Your task to perform on an android device: What's on my calendar today? Image 0: 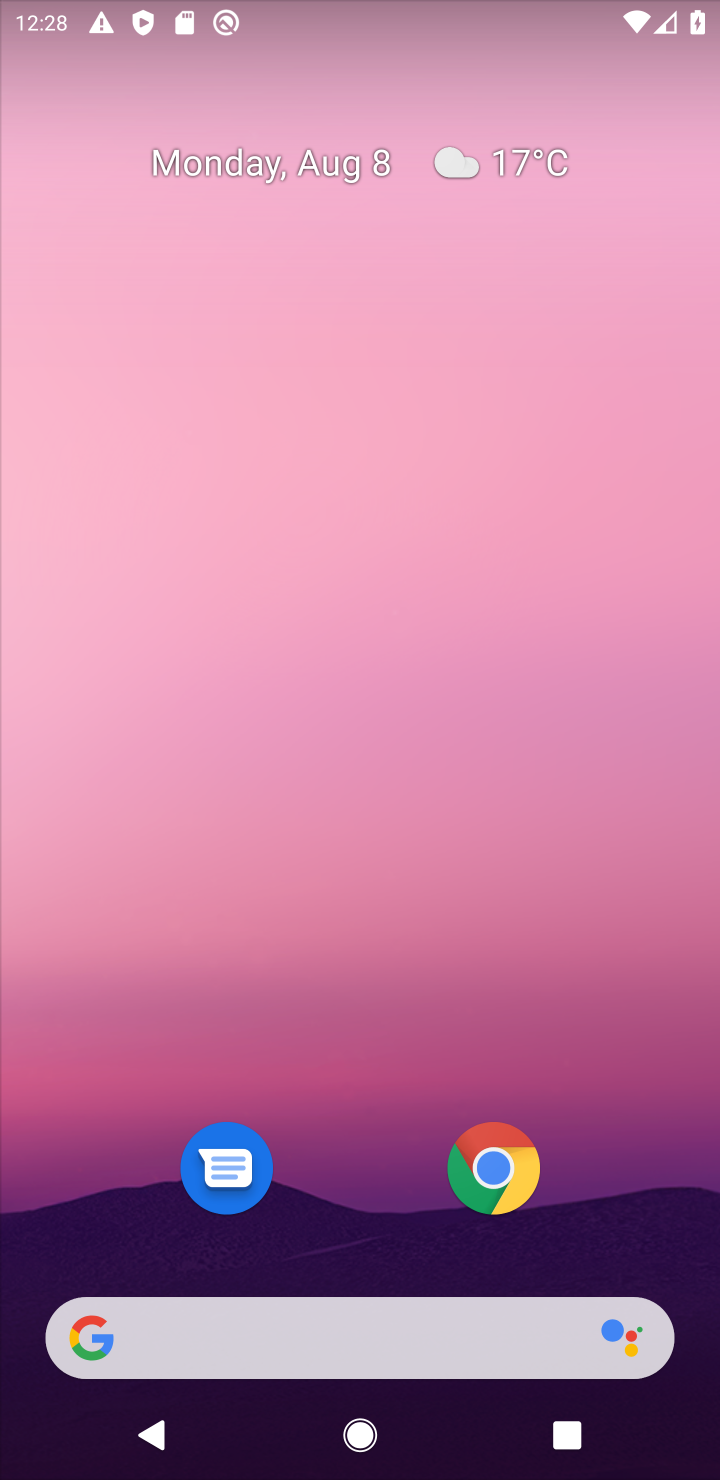
Step 0: drag from (89, 1417) to (601, 436)
Your task to perform on an android device: What's on my calendar today? Image 1: 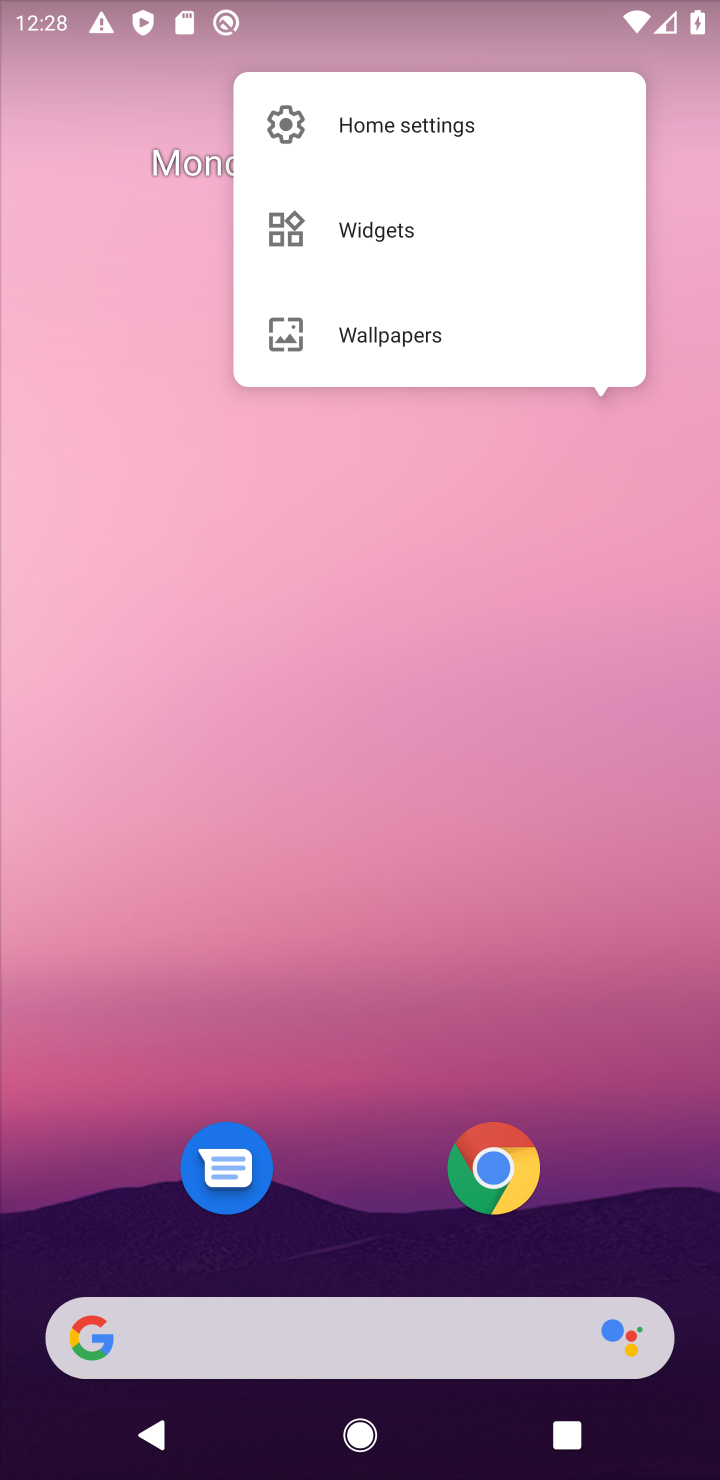
Step 1: drag from (51, 1428) to (208, 789)
Your task to perform on an android device: What's on my calendar today? Image 2: 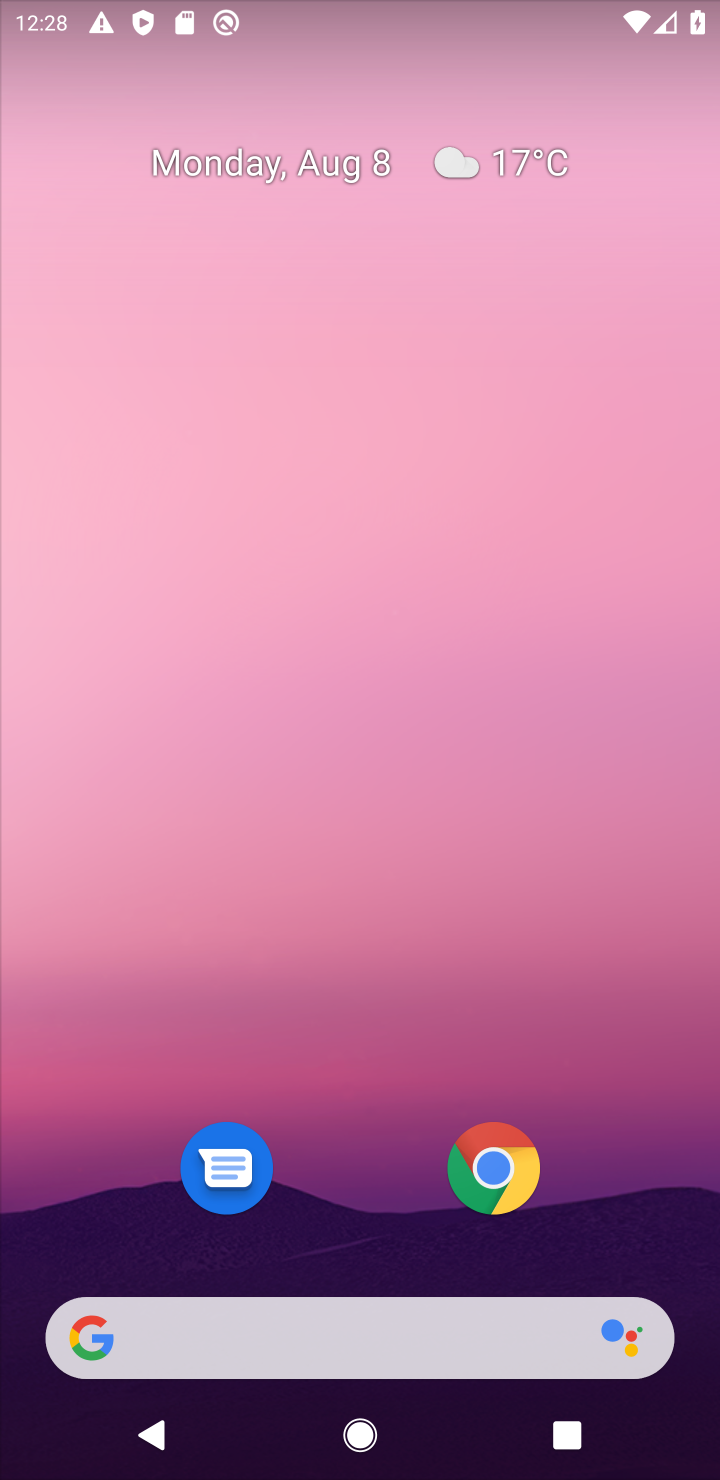
Step 2: drag from (50, 1442) to (275, 712)
Your task to perform on an android device: What's on my calendar today? Image 3: 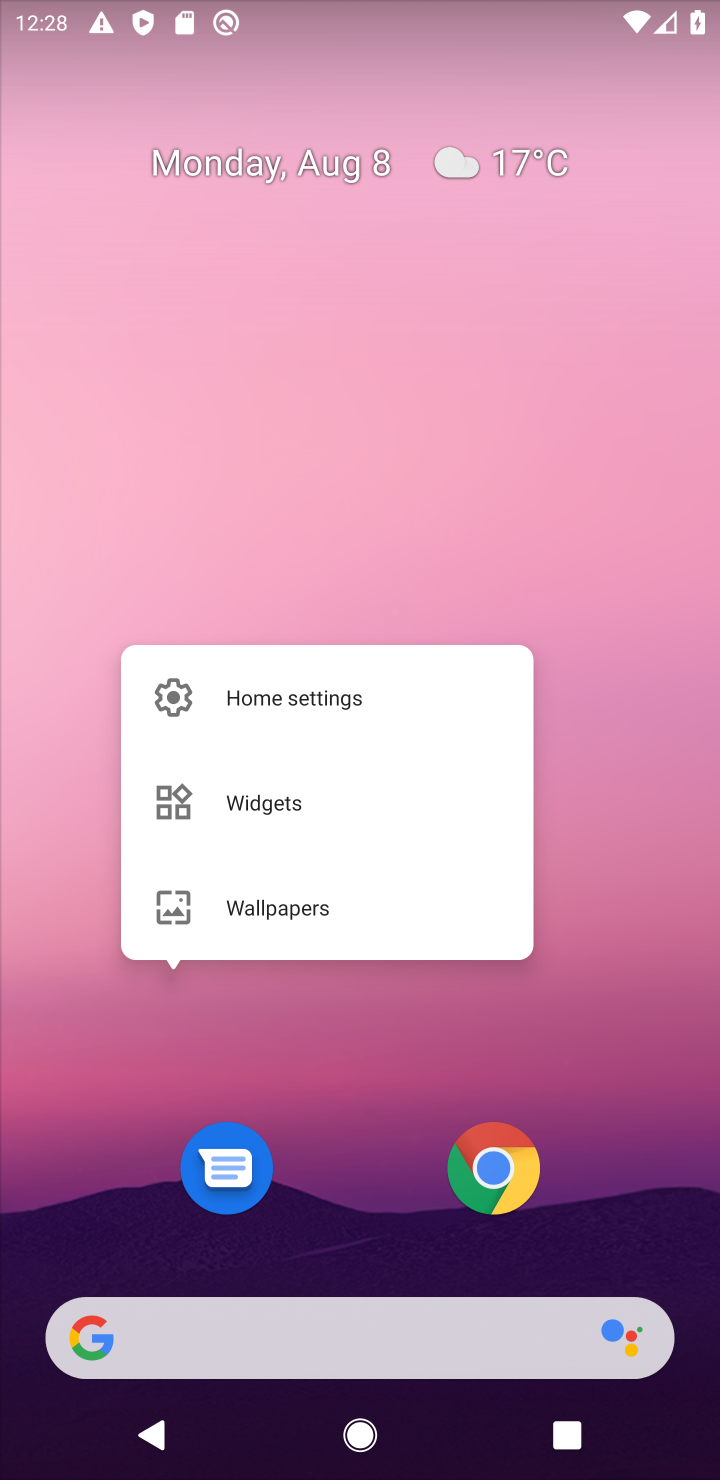
Step 3: drag from (85, 1438) to (491, 307)
Your task to perform on an android device: What's on my calendar today? Image 4: 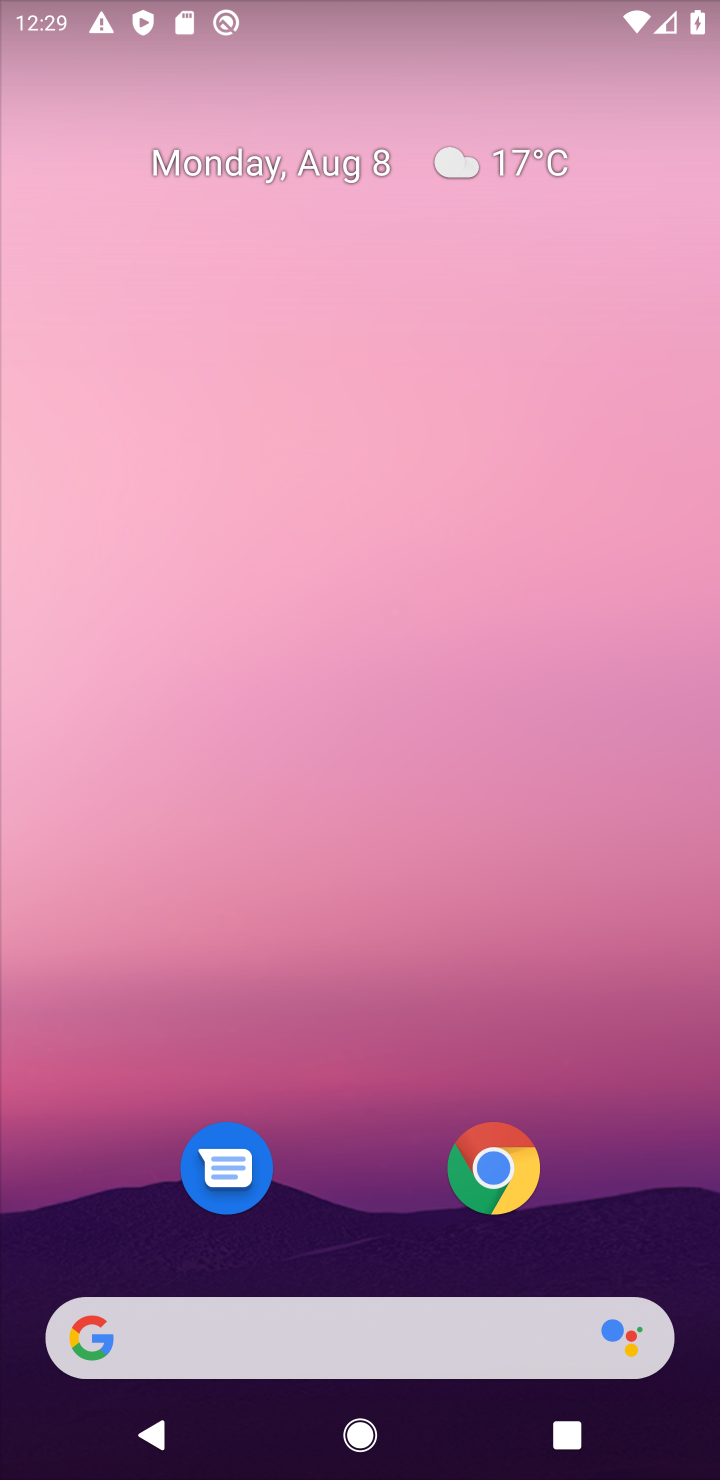
Step 4: drag from (84, 1411) to (271, 639)
Your task to perform on an android device: What's on my calendar today? Image 5: 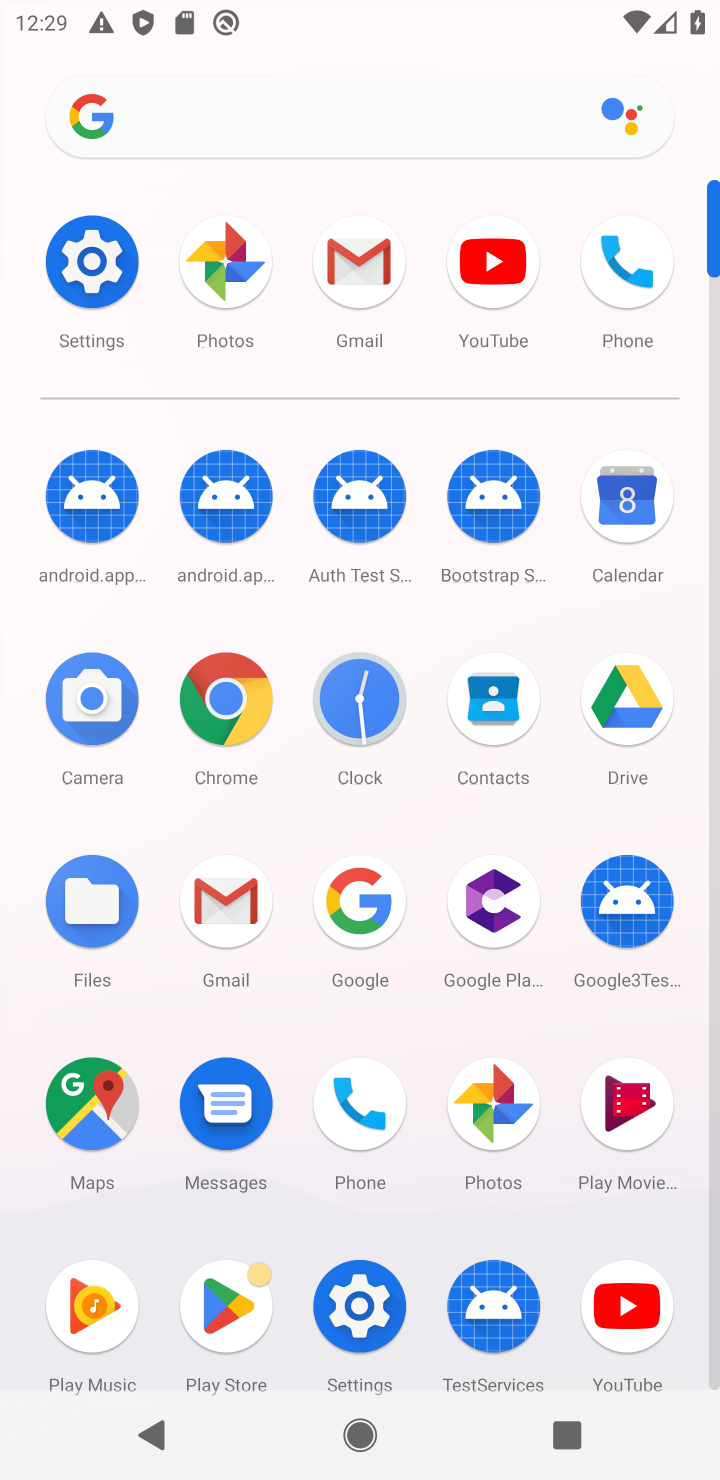
Step 5: click (632, 512)
Your task to perform on an android device: What's on my calendar today? Image 6: 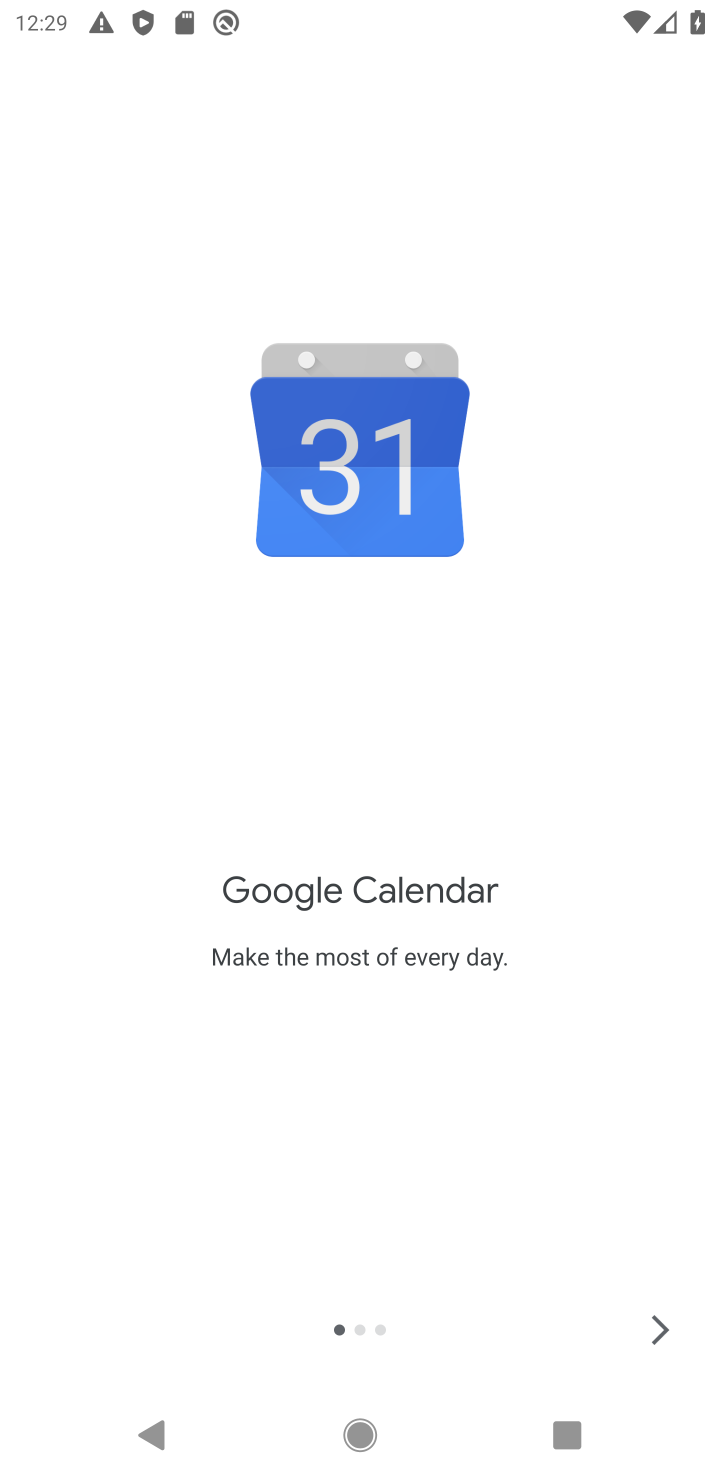
Step 6: click (660, 1325)
Your task to perform on an android device: What's on my calendar today? Image 7: 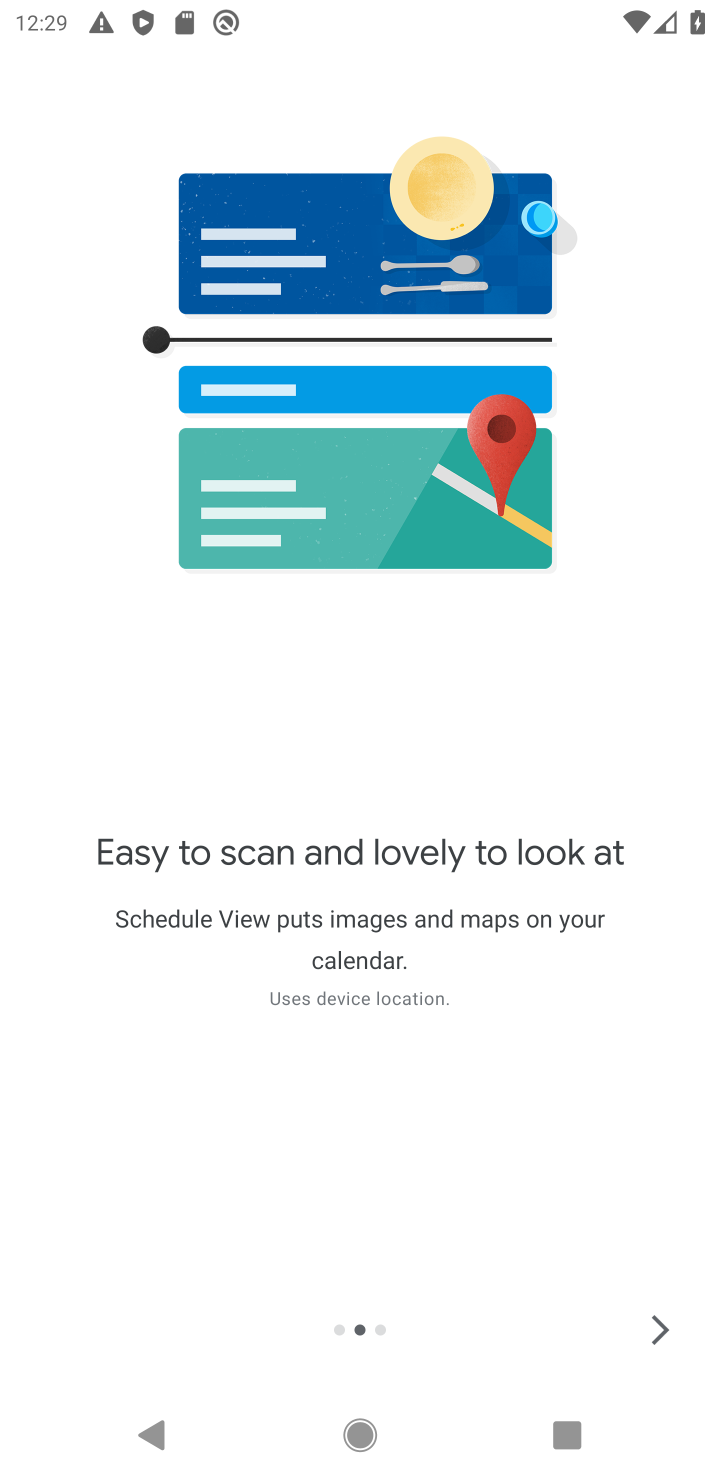
Step 7: click (660, 1325)
Your task to perform on an android device: What's on my calendar today? Image 8: 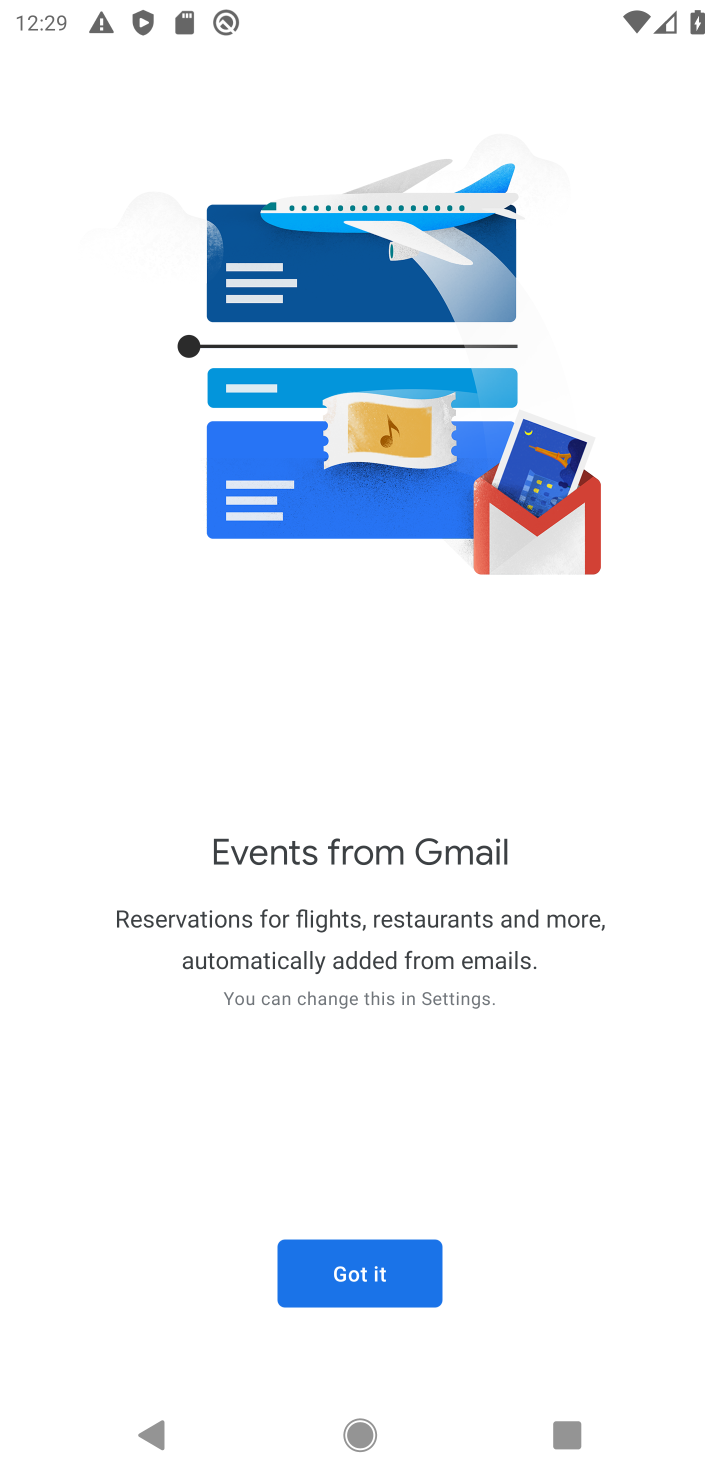
Step 8: click (402, 1271)
Your task to perform on an android device: What's on my calendar today? Image 9: 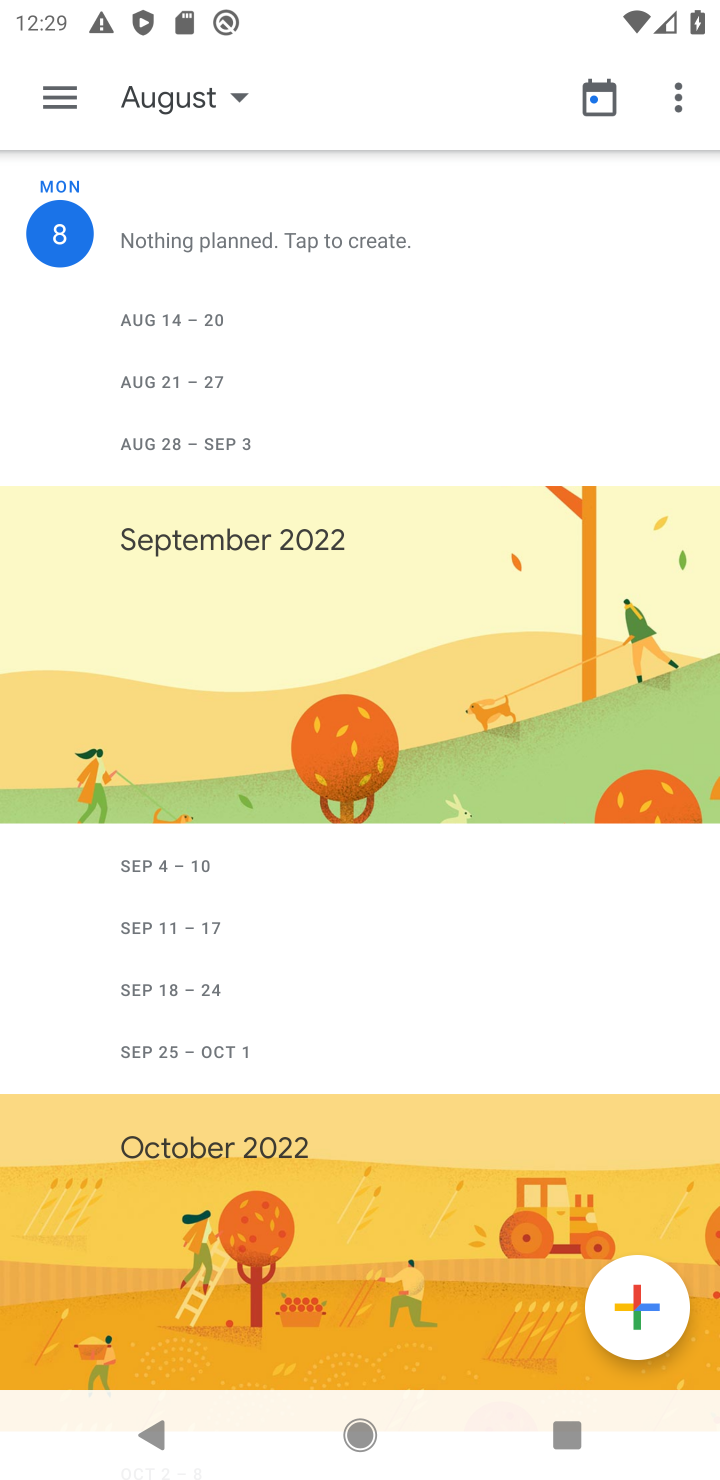
Step 9: click (237, 103)
Your task to perform on an android device: What's on my calendar today? Image 10: 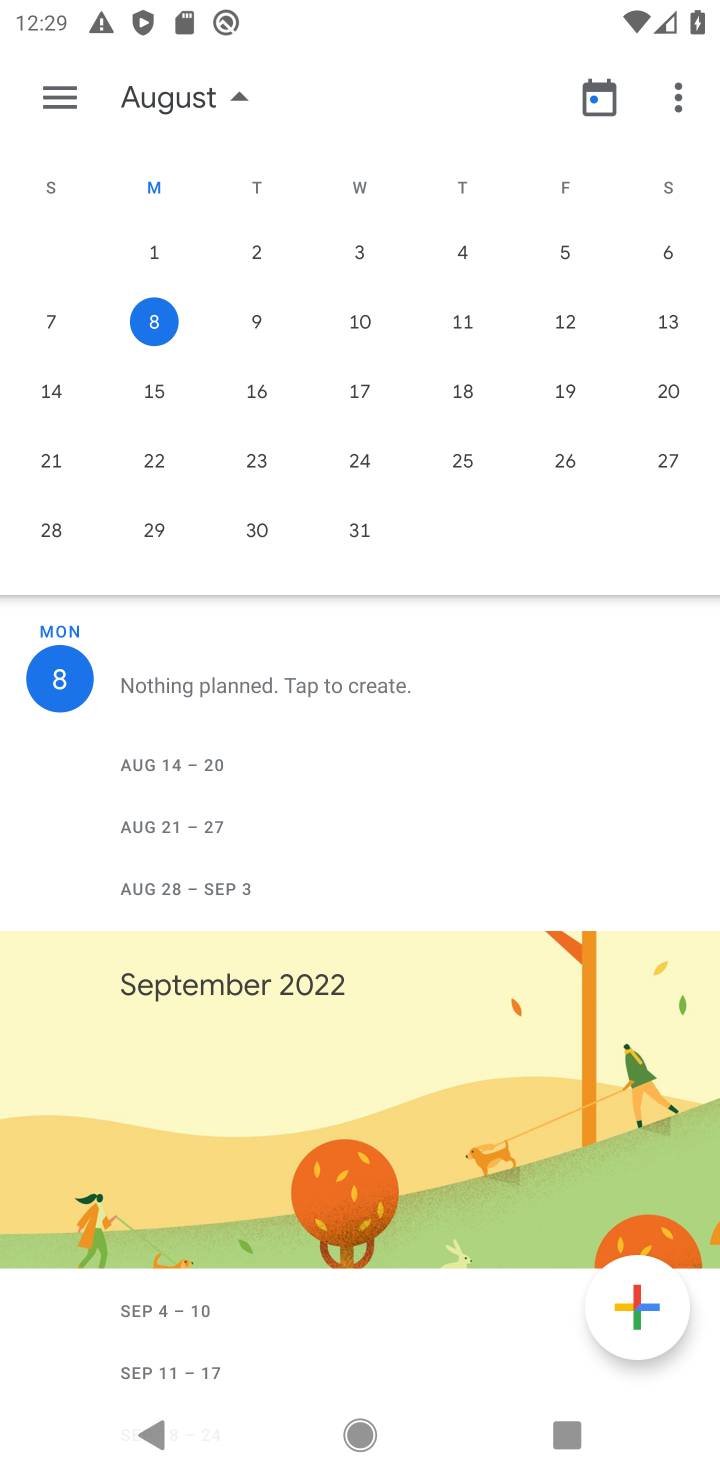
Step 10: task complete